Your task to perform on an android device: Open battery settings Image 0: 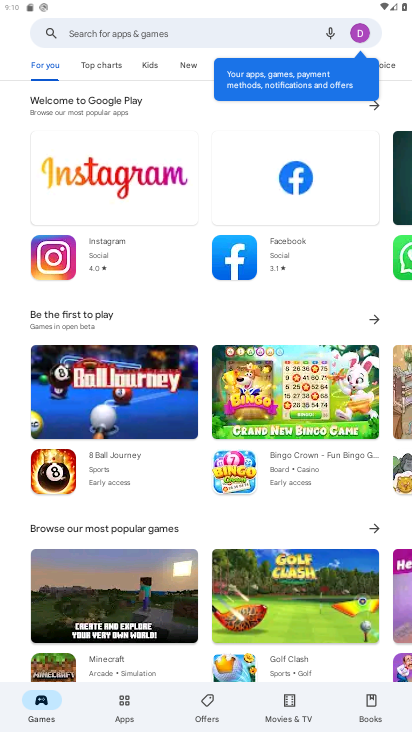
Step 0: press home button
Your task to perform on an android device: Open battery settings Image 1: 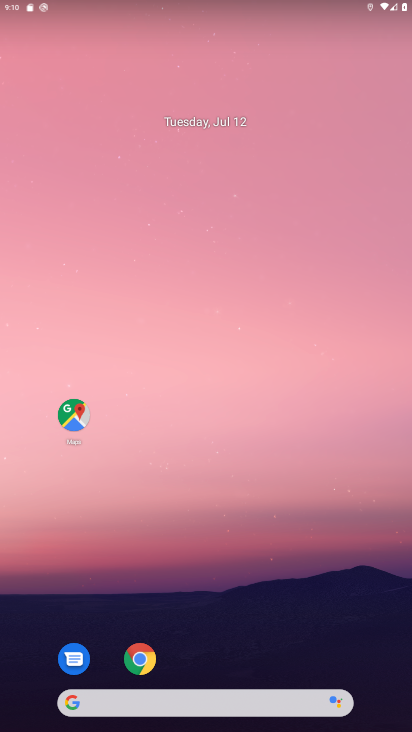
Step 1: drag from (233, 645) to (245, 230)
Your task to perform on an android device: Open battery settings Image 2: 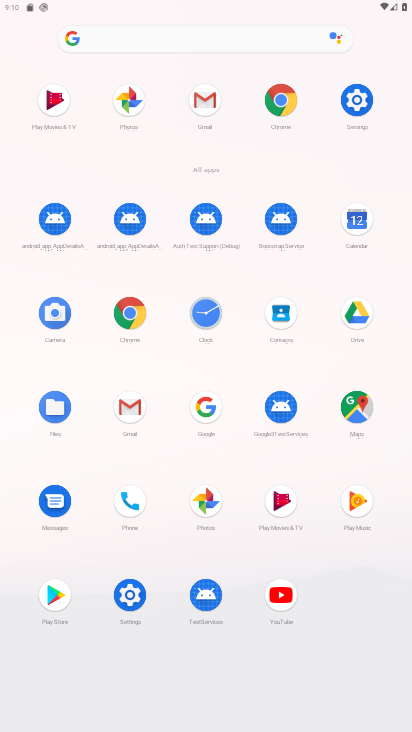
Step 2: click (124, 597)
Your task to perform on an android device: Open battery settings Image 3: 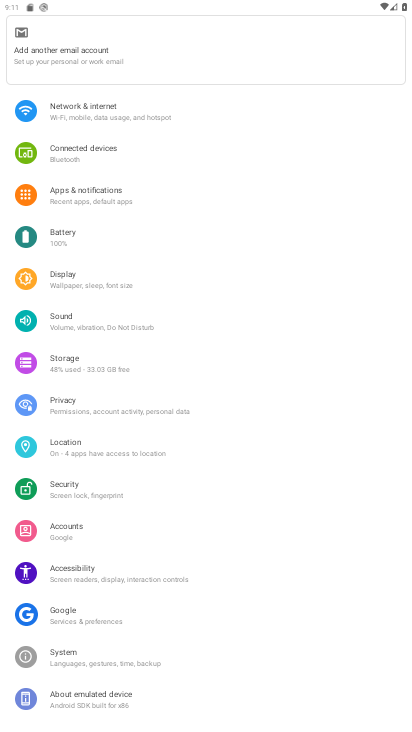
Step 3: click (65, 234)
Your task to perform on an android device: Open battery settings Image 4: 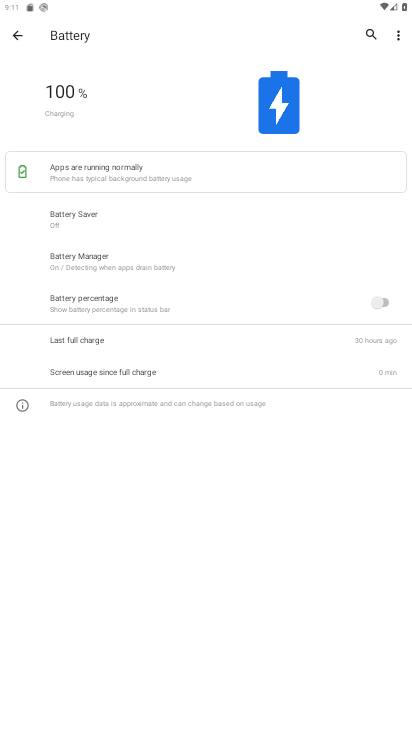
Step 4: task complete